Your task to perform on an android device: turn pop-ups on in chrome Image 0: 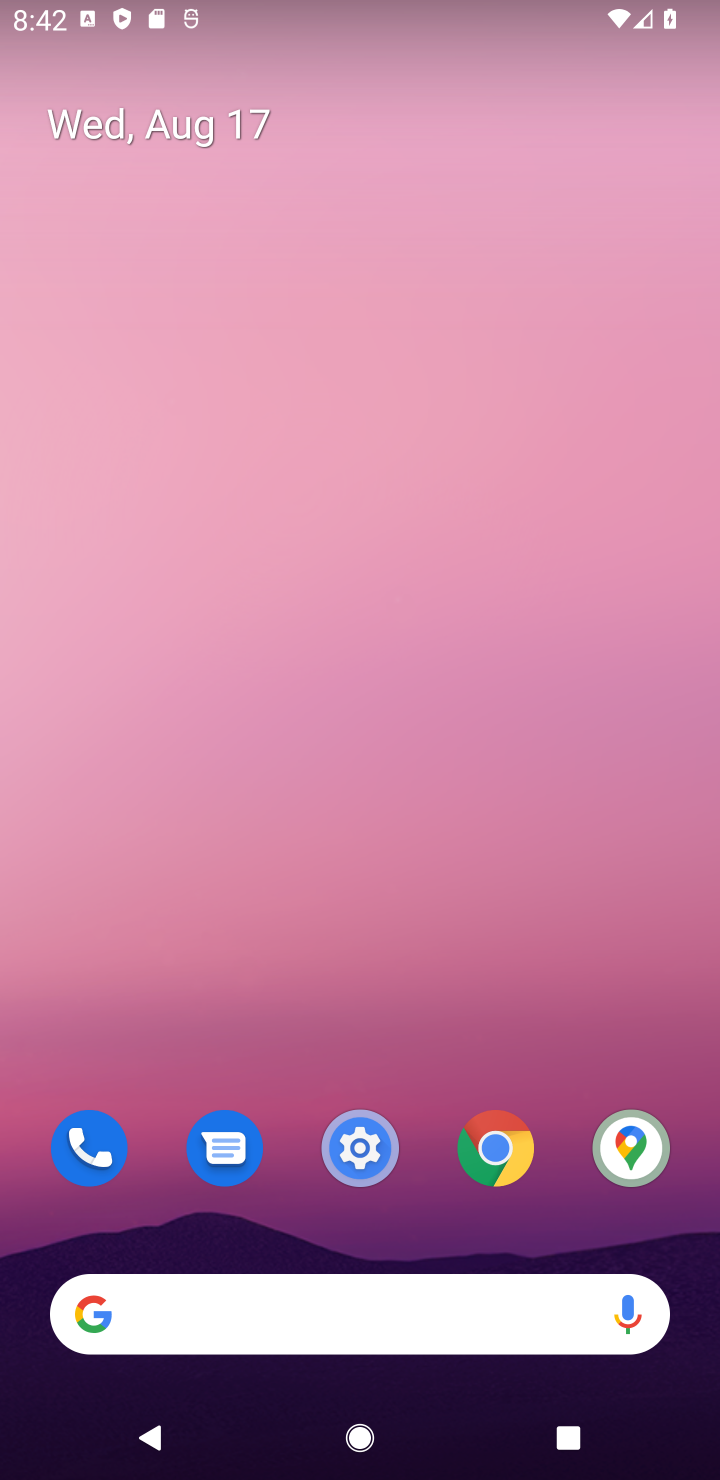
Step 0: click (498, 1150)
Your task to perform on an android device: turn pop-ups on in chrome Image 1: 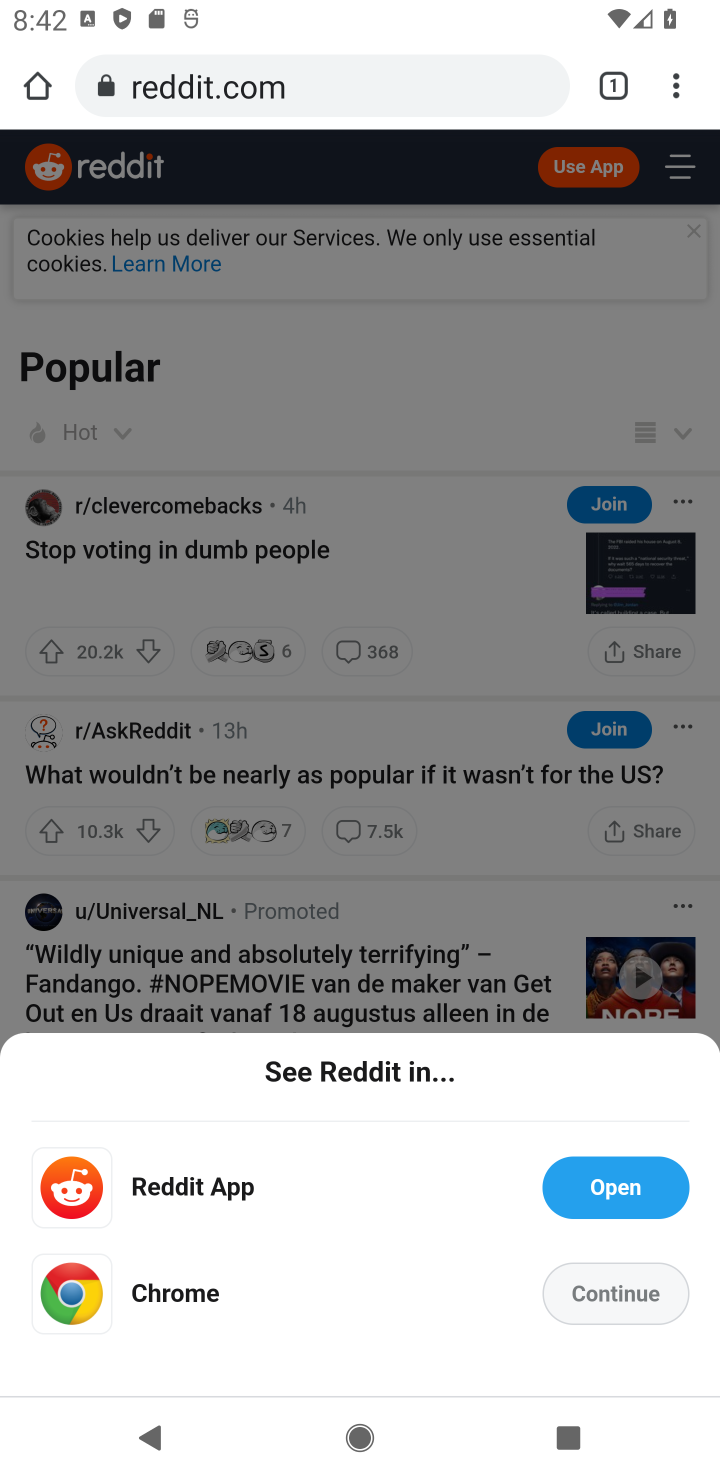
Step 1: click (671, 94)
Your task to perform on an android device: turn pop-ups on in chrome Image 2: 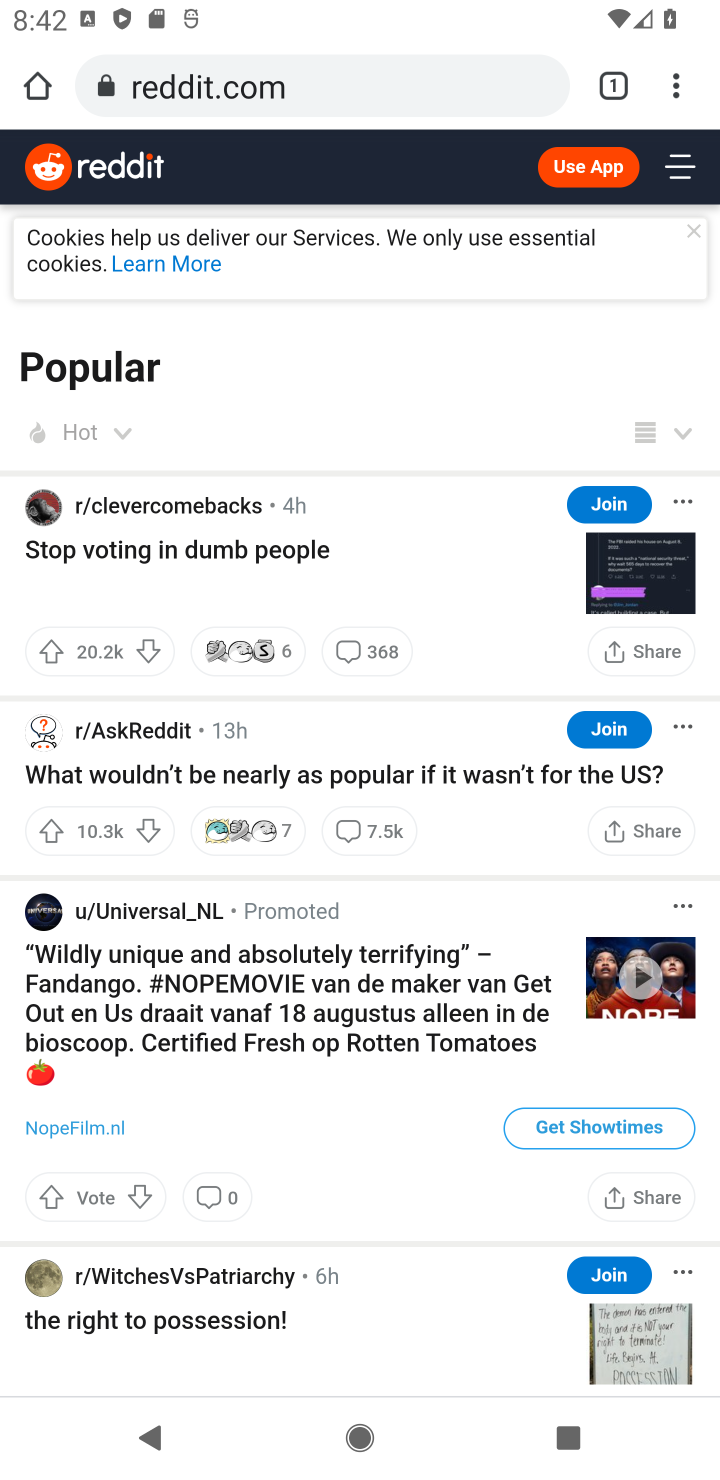
Step 2: click (666, 99)
Your task to perform on an android device: turn pop-ups on in chrome Image 3: 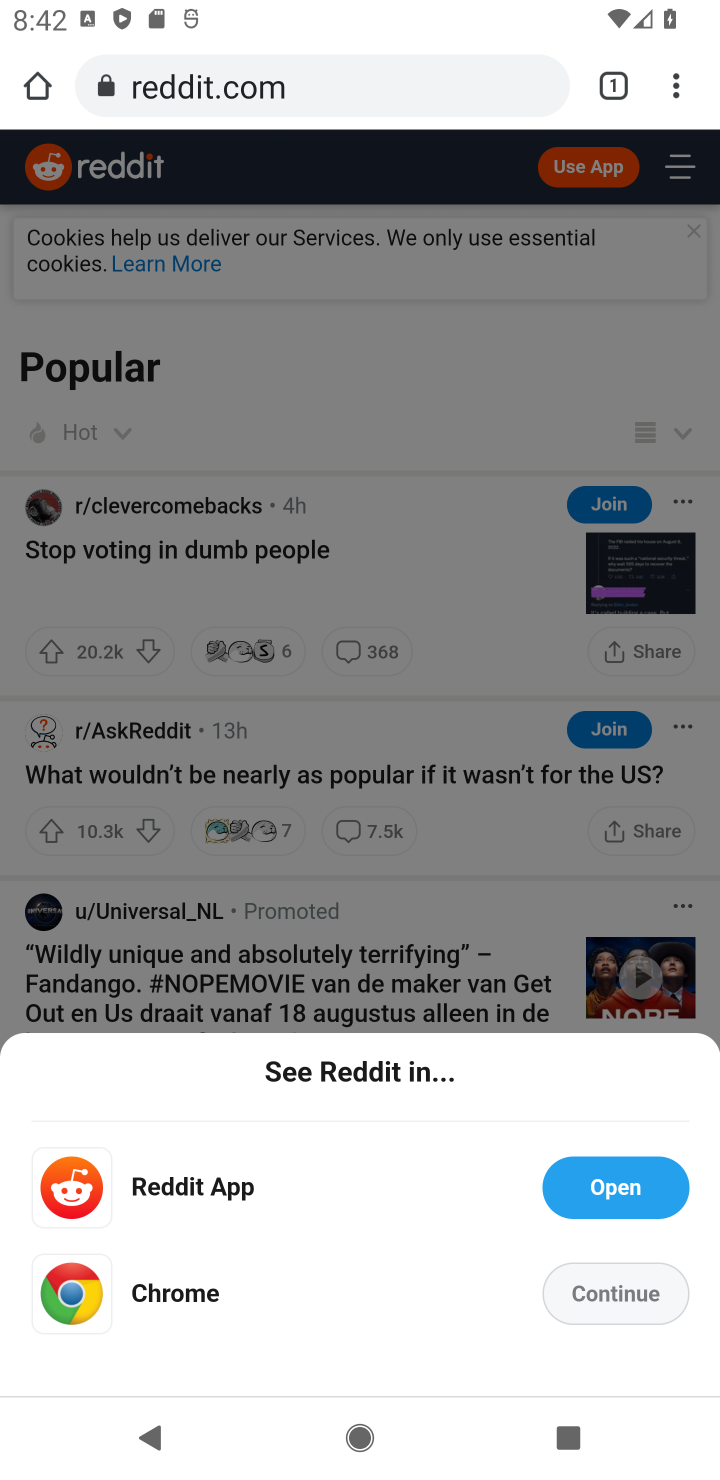
Step 3: click (666, 99)
Your task to perform on an android device: turn pop-ups on in chrome Image 4: 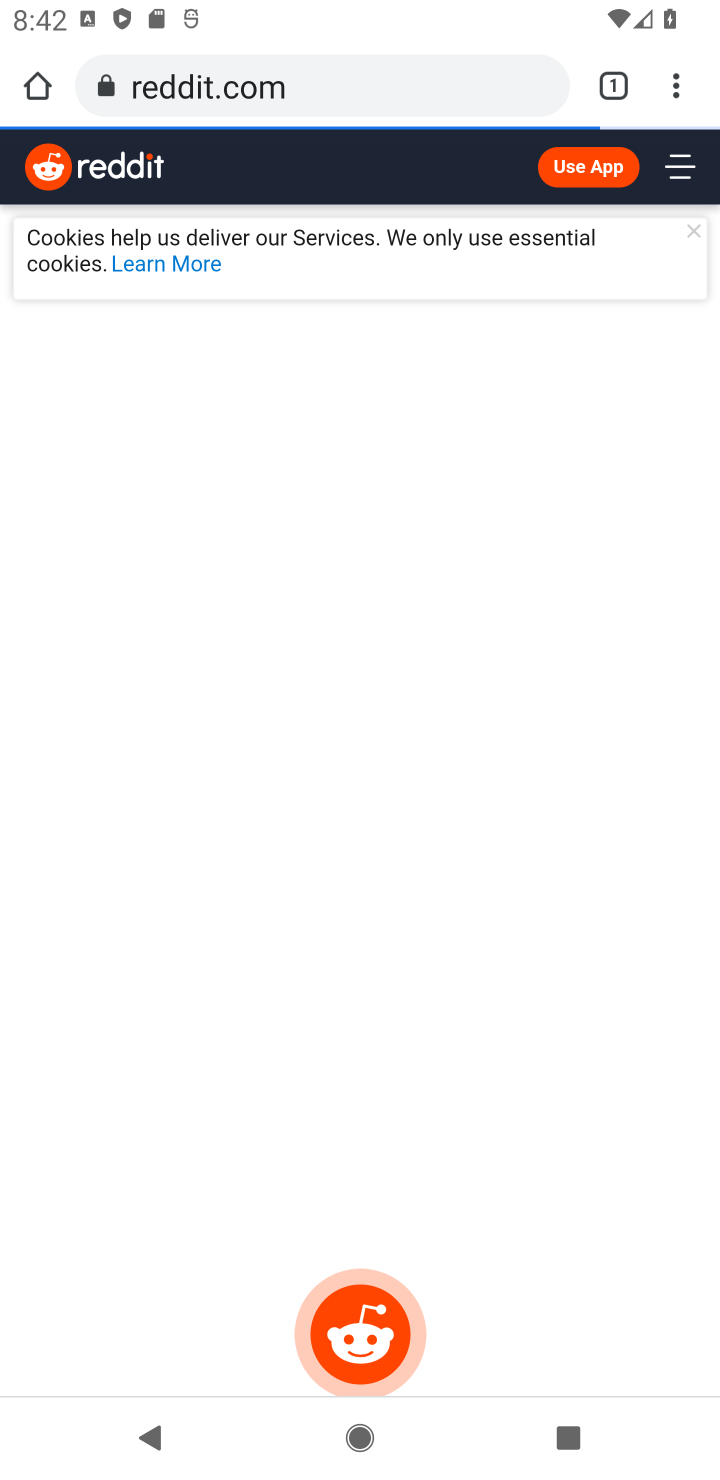
Step 4: click (658, 99)
Your task to perform on an android device: turn pop-ups on in chrome Image 5: 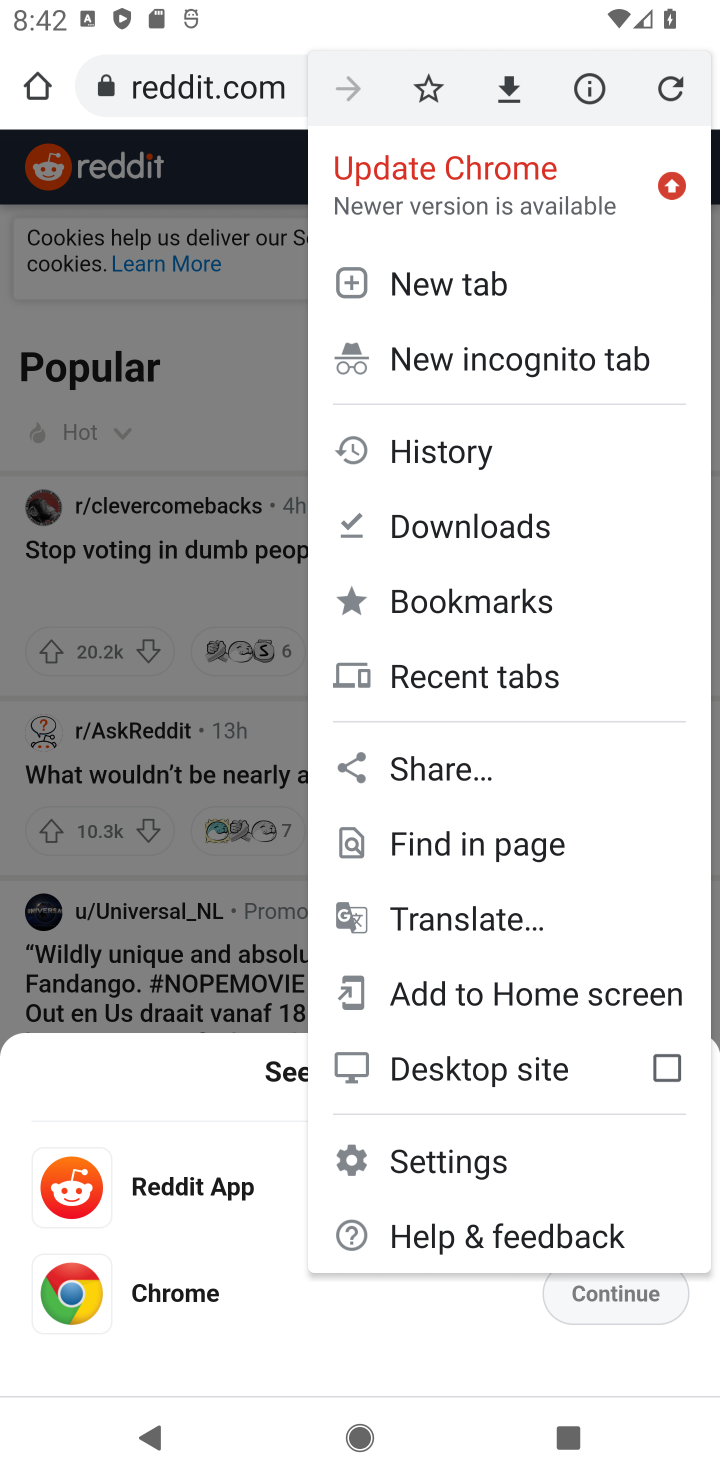
Step 5: click (442, 1154)
Your task to perform on an android device: turn pop-ups on in chrome Image 6: 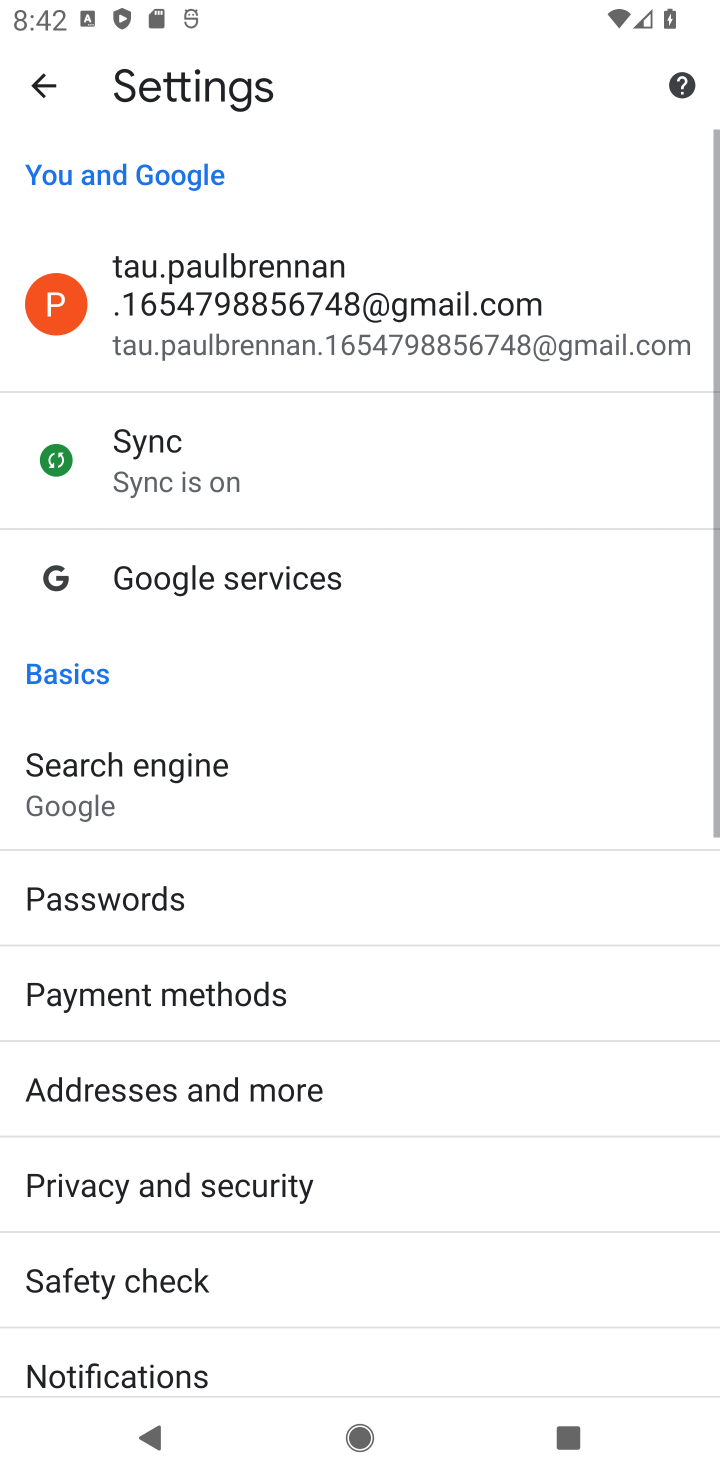
Step 6: drag from (484, 1311) to (478, 369)
Your task to perform on an android device: turn pop-ups on in chrome Image 7: 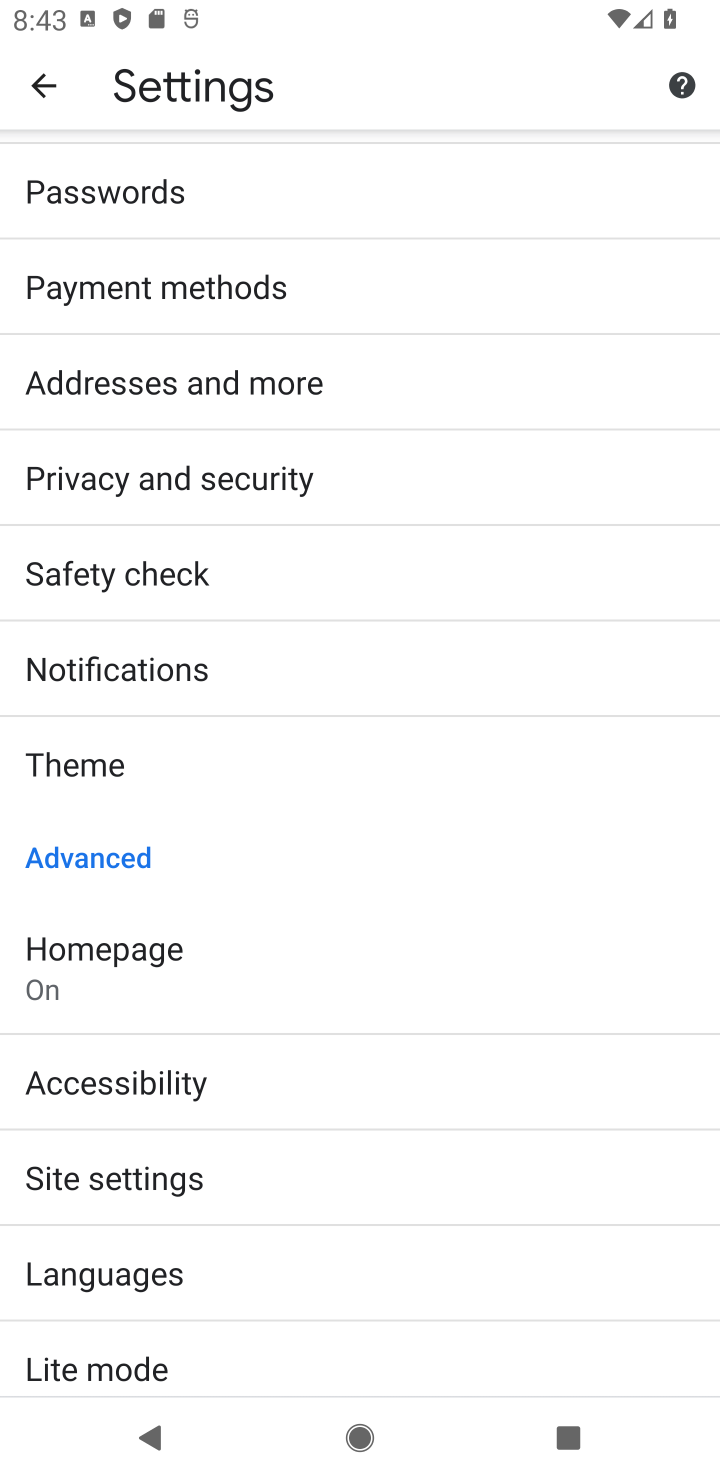
Step 7: click (105, 1179)
Your task to perform on an android device: turn pop-ups on in chrome Image 8: 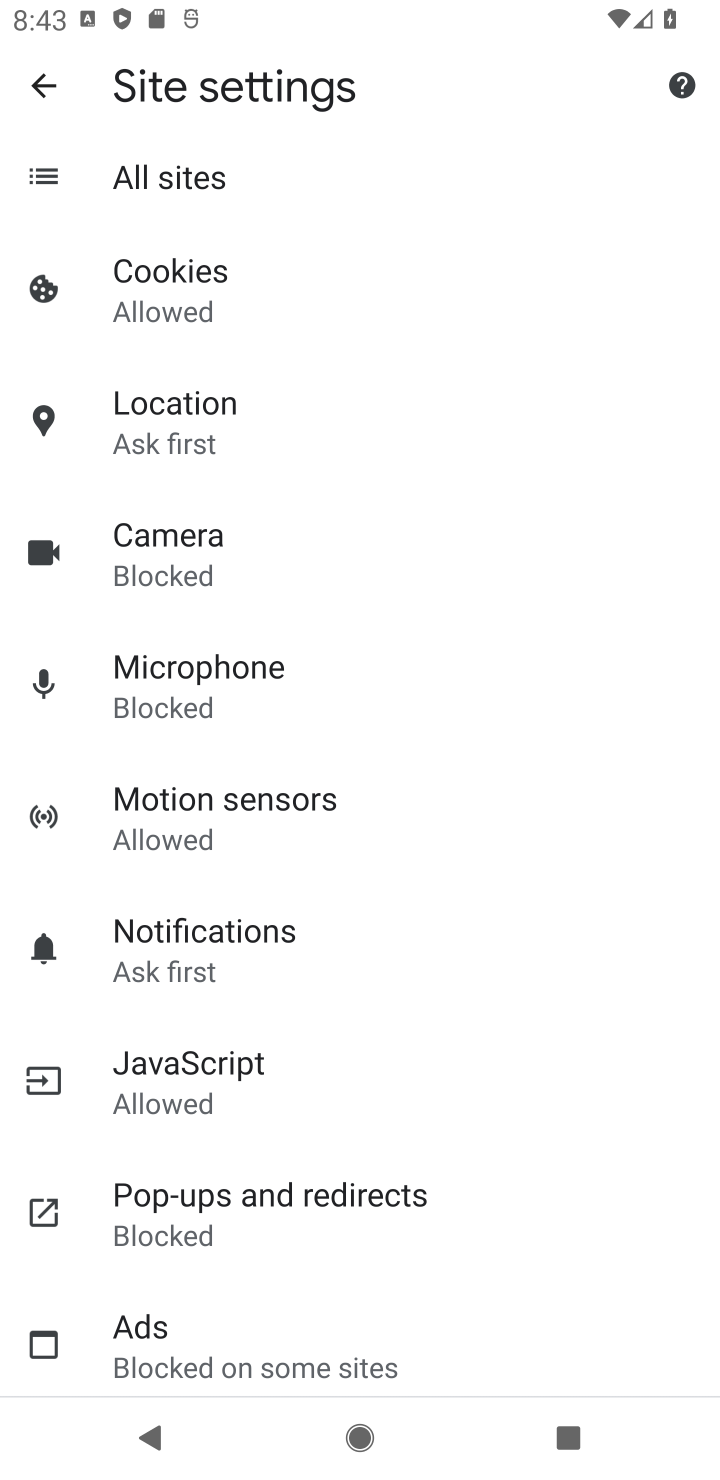
Step 8: click (169, 1221)
Your task to perform on an android device: turn pop-ups on in chrome Image 9: 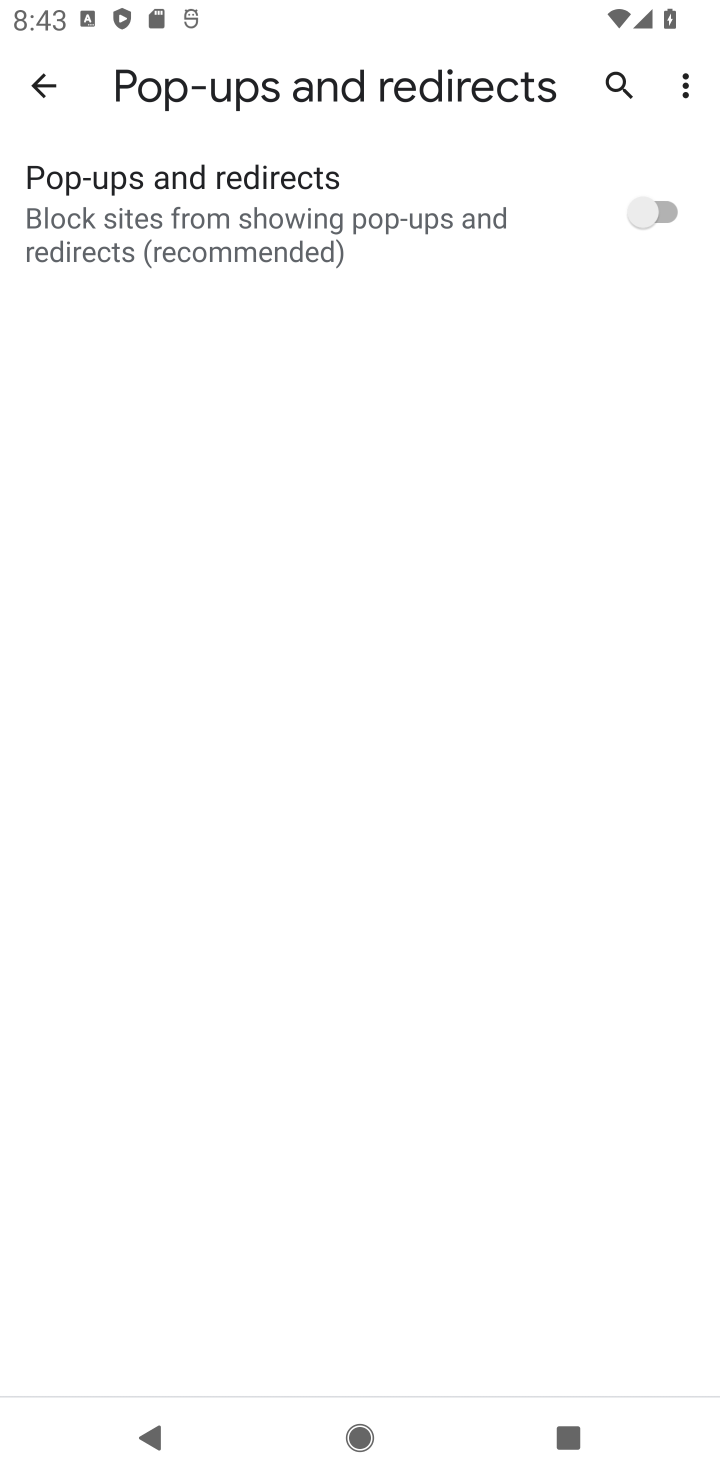
Step 9: click (674, 209)
Your task to perform on an android device: turn pop-ups on in chrome Image 10: 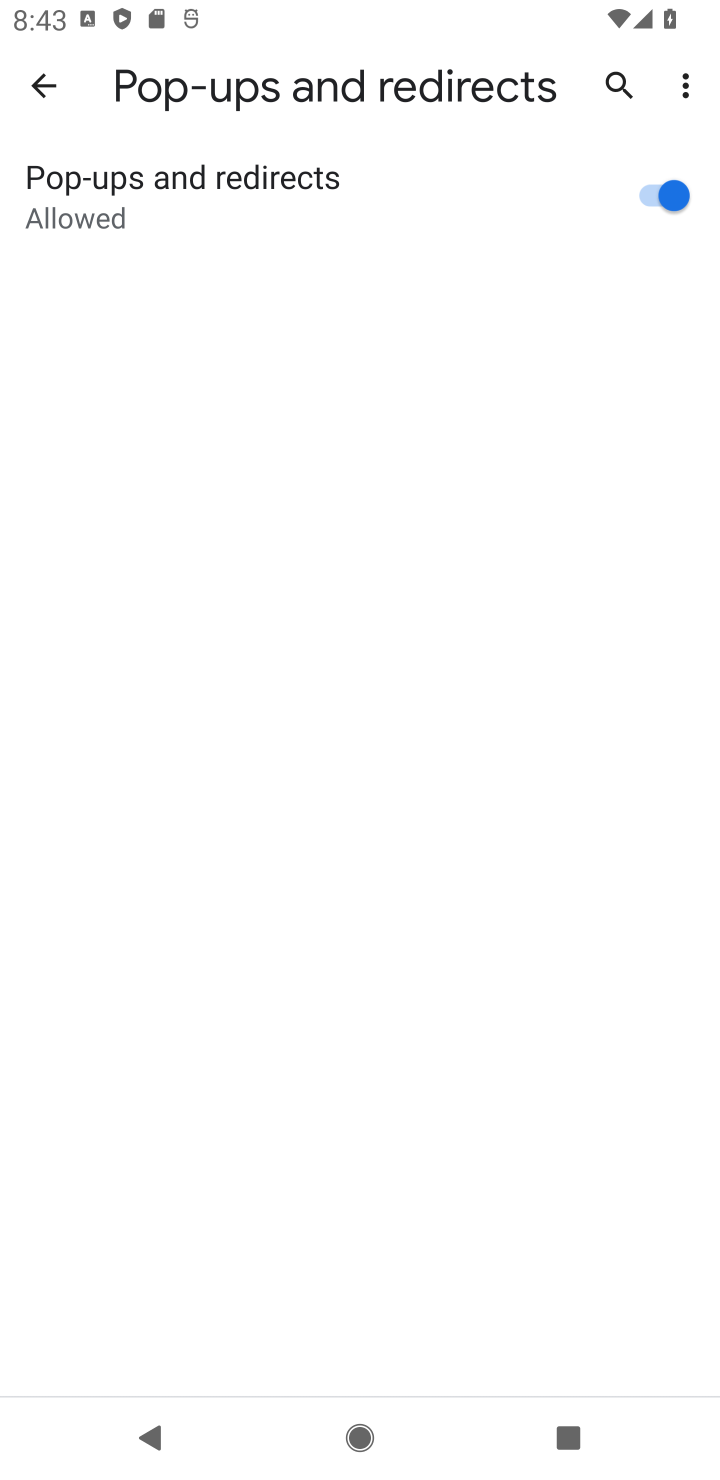
Step 10: task complete